Your task to perform on an android device: visit the assistant section in the google photos Image 0: 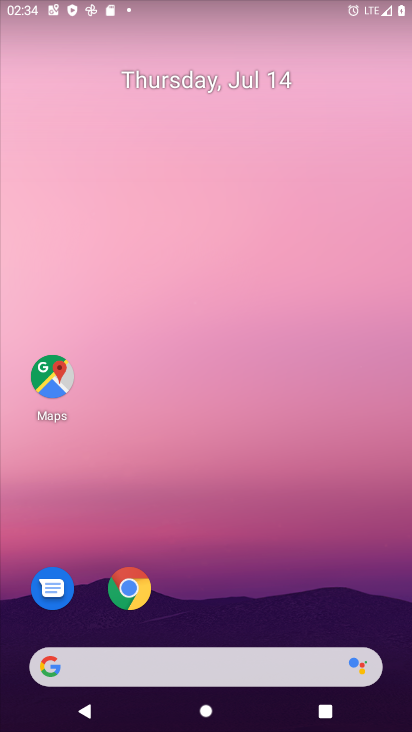
Step 0: drag from (252, 709) to (190, 277)
Your task to perform on an android device: visit the assistant section in the google photos Image 1: 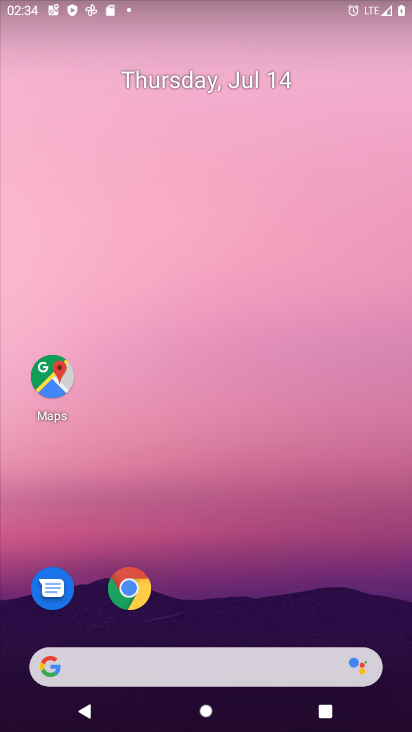
Step 1: drag from (244, 647) to (305, 21)
Your task to perform on an android device: visit the assistant section in the google photos Image 2: 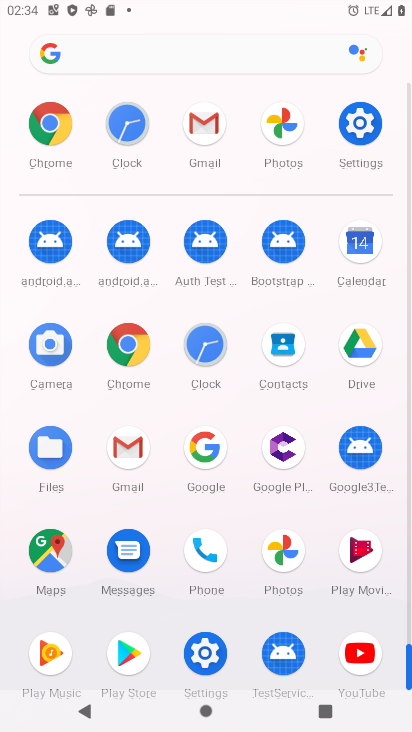
Step 2: click (290, 119)
Your task to perform on an android device: visit the assistant section in the google photos Image 3: 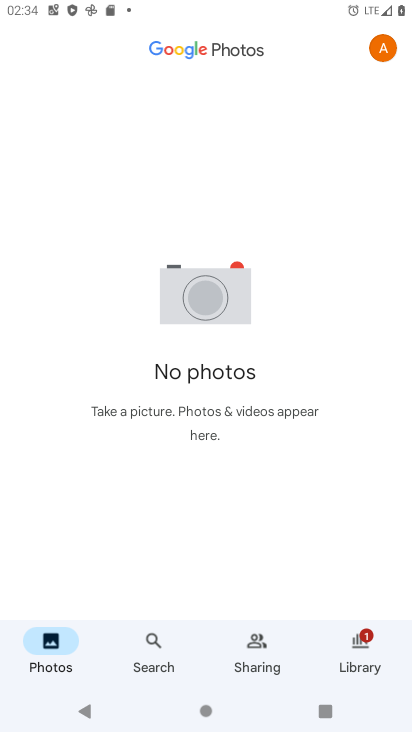
Step 3: click (359, 651)
Your task to perform on an android device: visit the assistant section in the google photos Image 4: 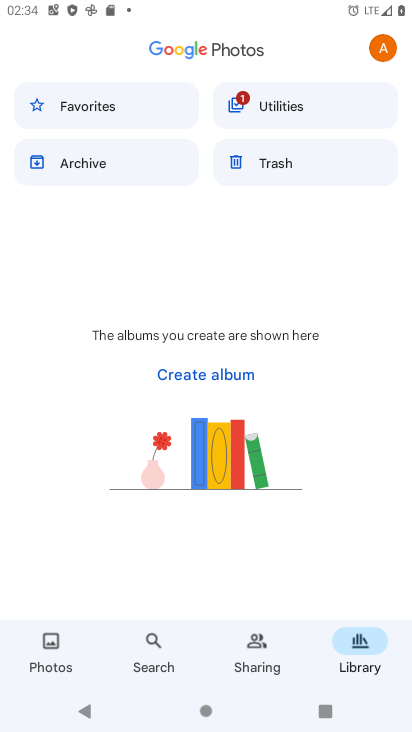
Step 4: task complete